Your task to perform on an android device: Open Chrome and go to settings Image 0: 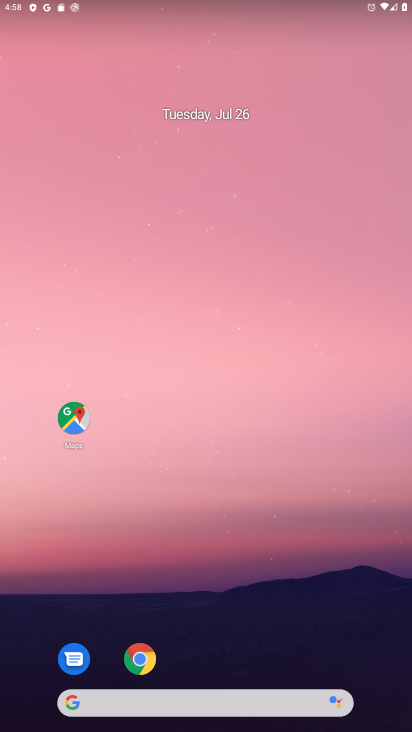
Step 0: drag from (214, 669) to (250, 145)
Your task to perform on an android device: Open Chrome and go to settings Image 1: 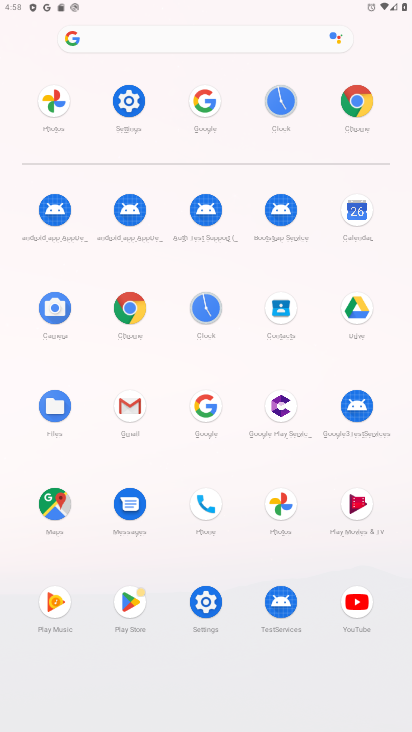
Step 1: click (357, 97)
Your task to perform on an android device: Open Chrome and go to settings Image 2: 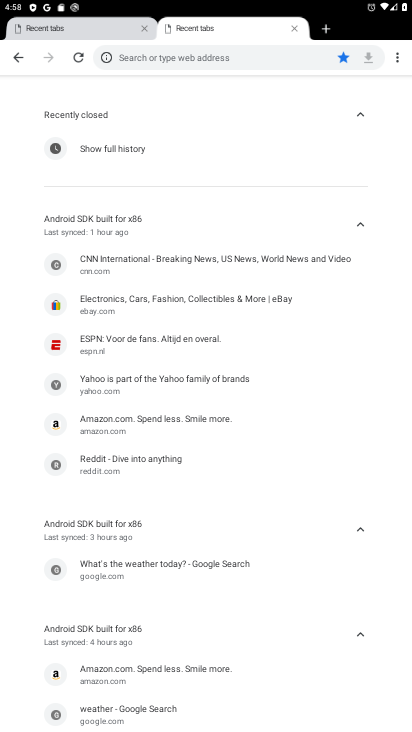
Step 2: click (399, 57)
Your task to perform on an android device: Open Chrome and go to settings Image 3: 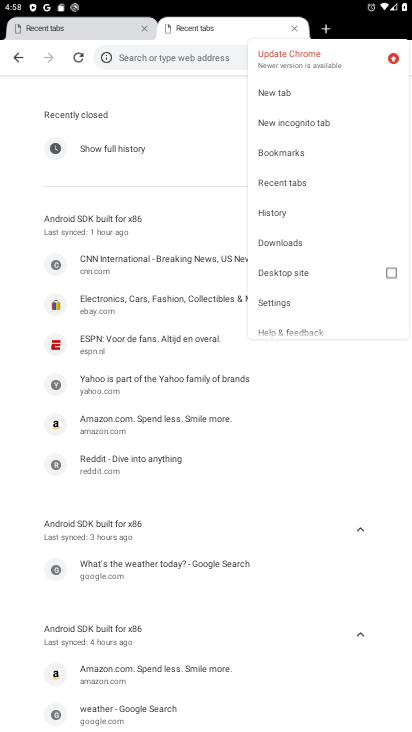
Step 3: click (290, 300)
Your task to perform on an android device: Open Chrome and go to settings Image 4: 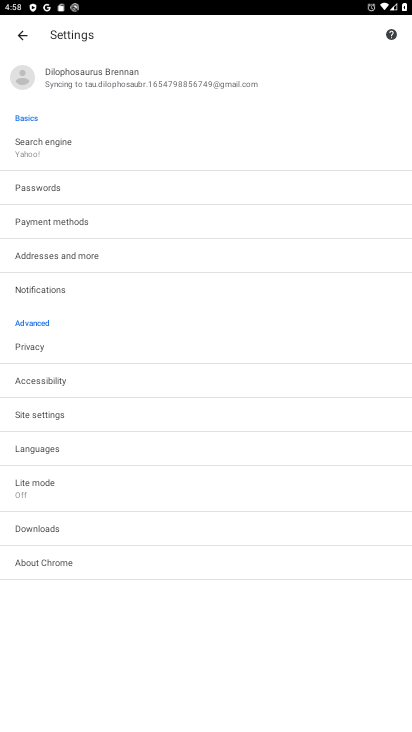
Step 4: task complete